Your task to perform on an android device: turn off location Image 0: 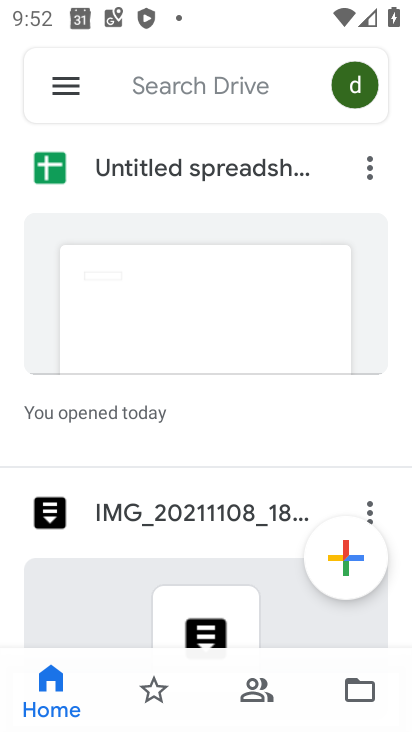
Step 0: press home button
Your task to perform on an android device: turn off location Image 1: 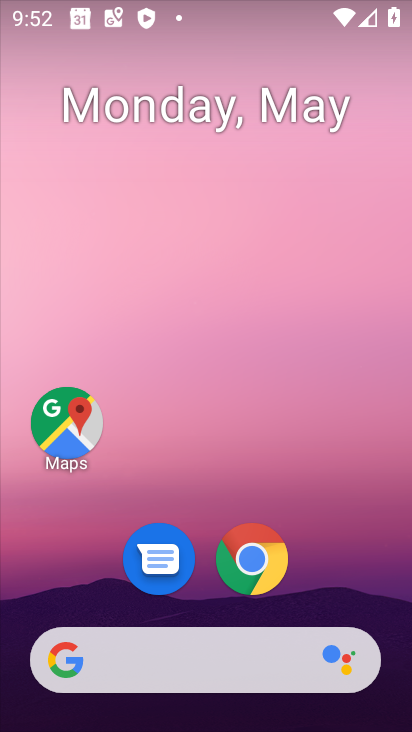
Step 1: drag from (326, 569) to (212, 85)
Your task to perform on an android device: turn off location Image 2: 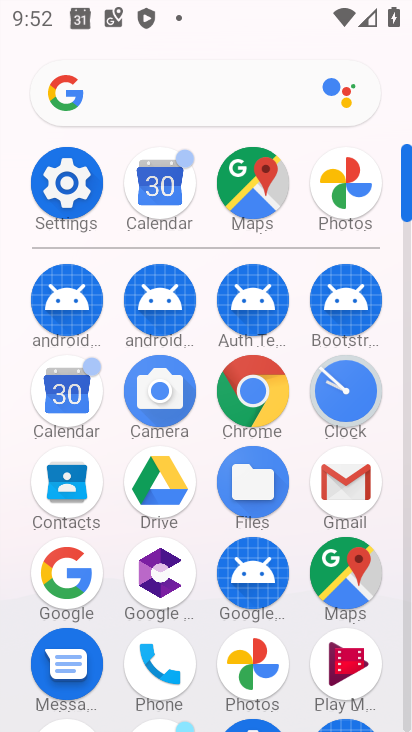
Step 2: click (70, 174)
Your task to perform on an android device: turn off location Image 3: 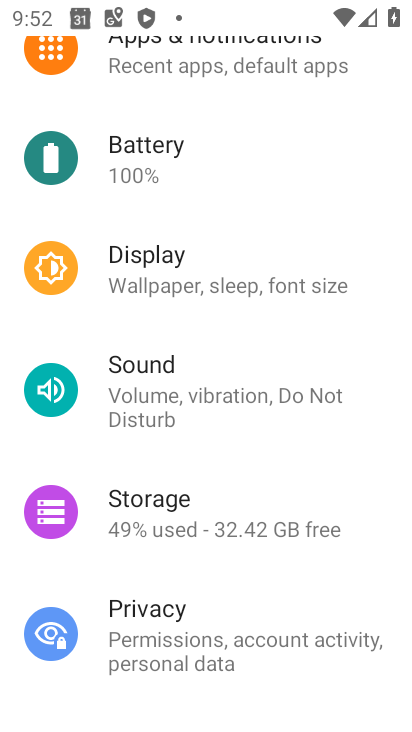
Step 3: drag from (218, 588) to (204, 169)
Your task to perform on an android device: turn off location Image 4: 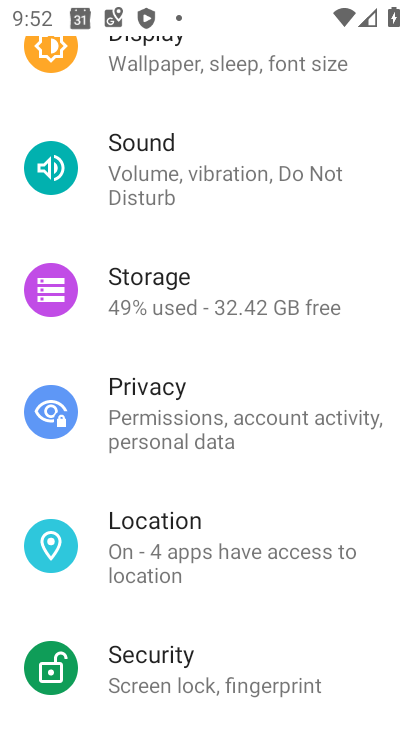
Step 4: click (156, 532)
Your task to perform on an android device: turn off location Image 5: 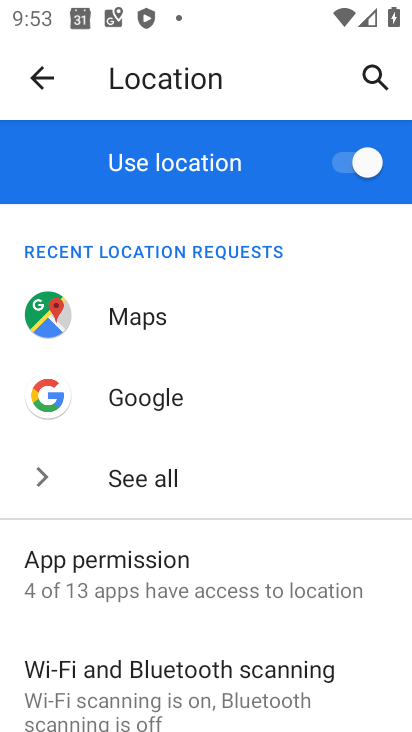
Step 5: task complete